Your task to perform on an android device: Open the Play Movies app and select the watchlist tab. Image 0: 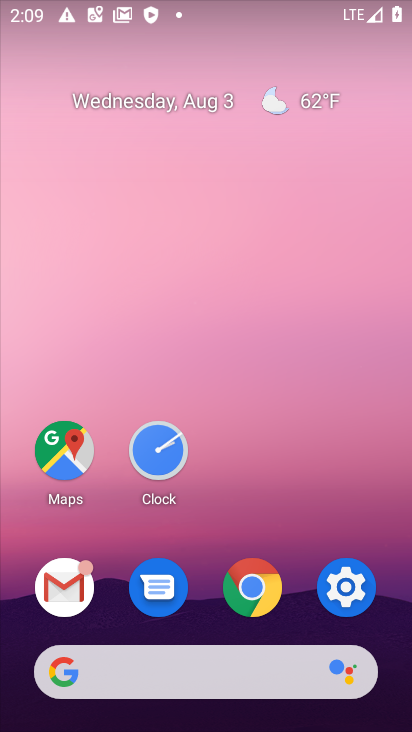
Step 0: drag from (295, 540) to (300, 22)
Your task to perform on an android device: Open the Play Movies app and select the watchlist tab. Image 1: 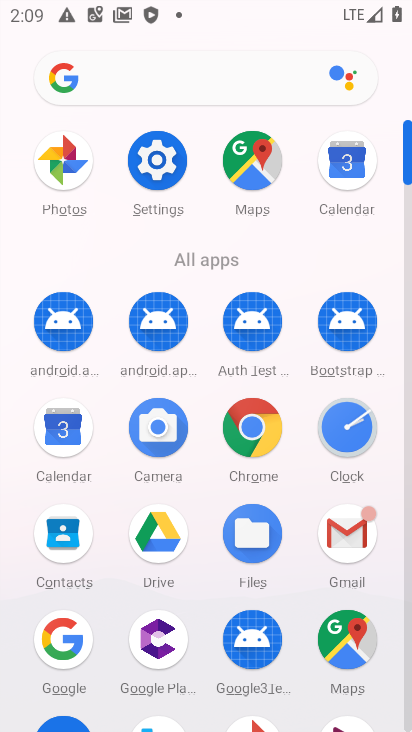
Step 1: drag from (294, 667) to (307, 102)
Your task to perform on an android device: Open the Play Movies app and select the watchlist tab. Image 2: 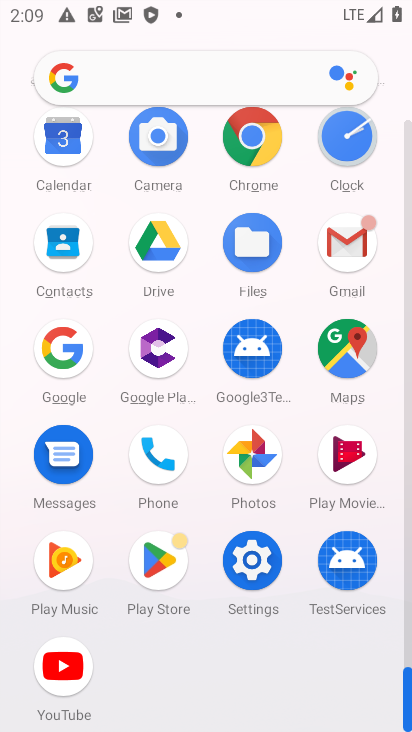
Step 2: click (332, 454)
Your task to perform on an android device: Open the Play Movies app and select the watchlist tab. Image 3: 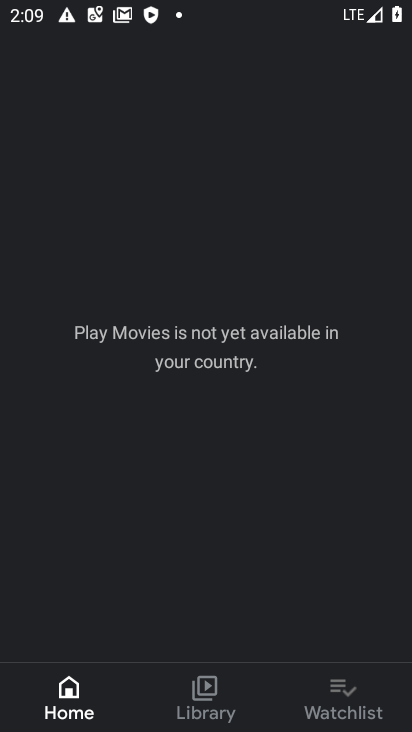
Step 3: click (336, 673)
Your task to perform on an android device: Open the Play Movies app and select the watchlist tab. Image 4: 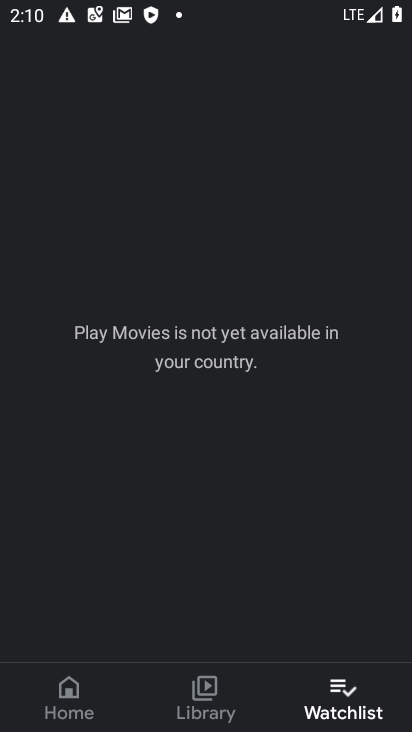
Step 4: task complete